Your task to perform on an android device: Open Reddit.com Image 0: 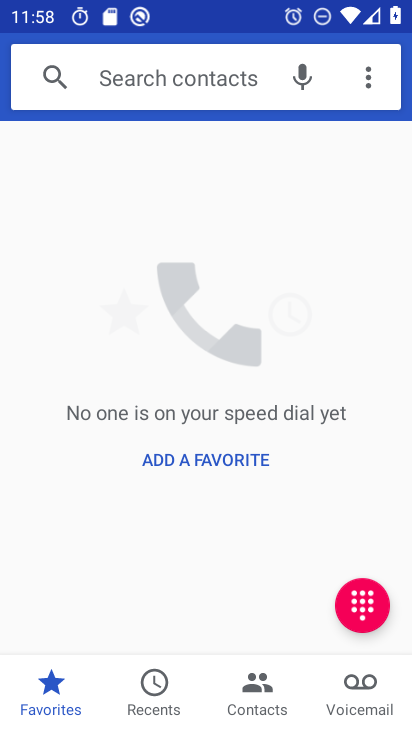
Step 0: press home button
Your task to perform on an android device: Open Reddit.com Image 1: 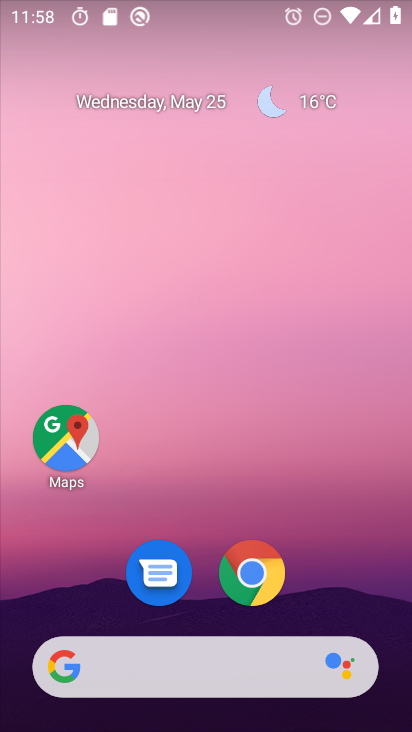
Step 1: click (268, 572)
Your task to perform on an android device: Open Reddit.com Image 2: 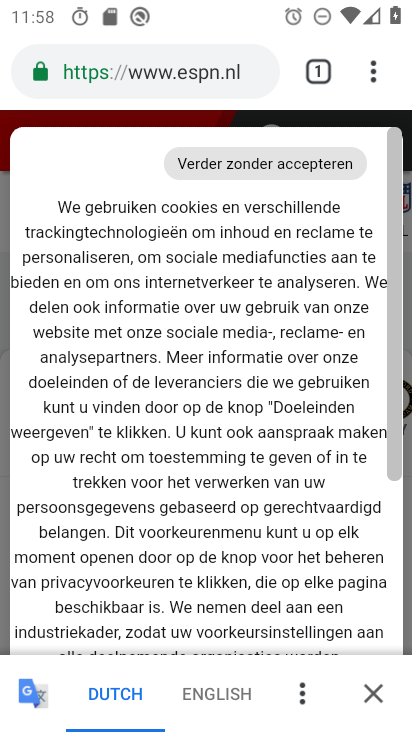
Step 2: click (140, 74)
Your task to perform on an android device: Open Reddit.com Image 3: 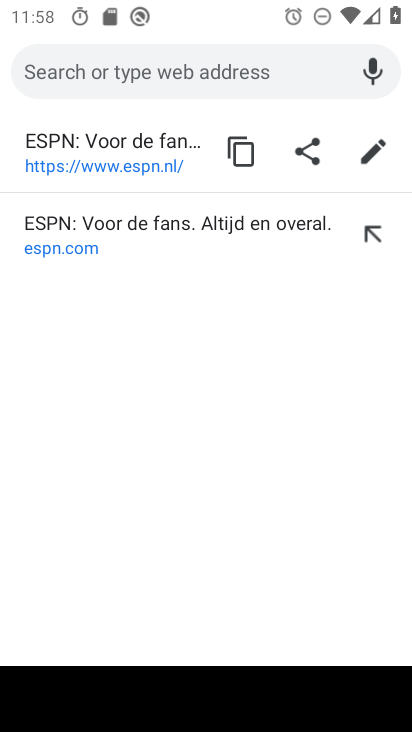
Step 3: type "reddit.com"
Your task to perform on an android device: Open Reddit.com Image 4: 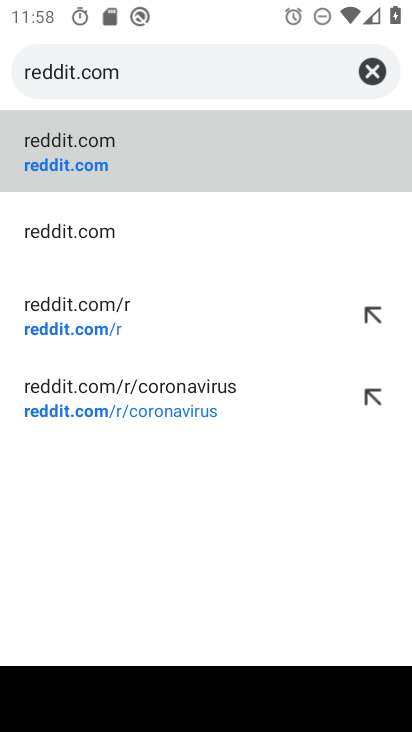
Step 4: click (81, 162)
Your task to perform on an android device: Open Reddit.com Image 5: 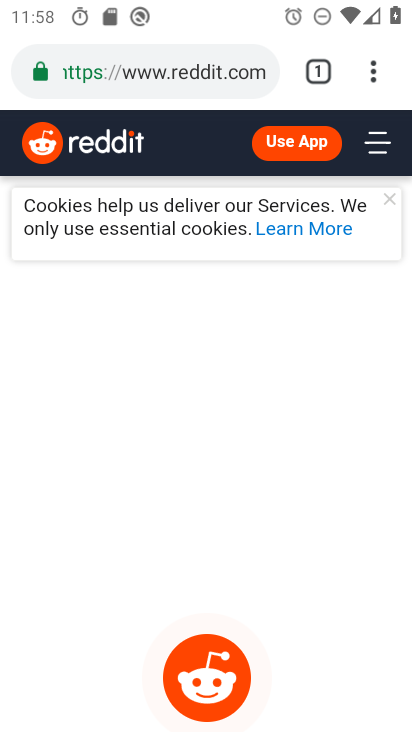
Step 5: task complete